Your task to perform on an android device: Open my contact list Image 0: 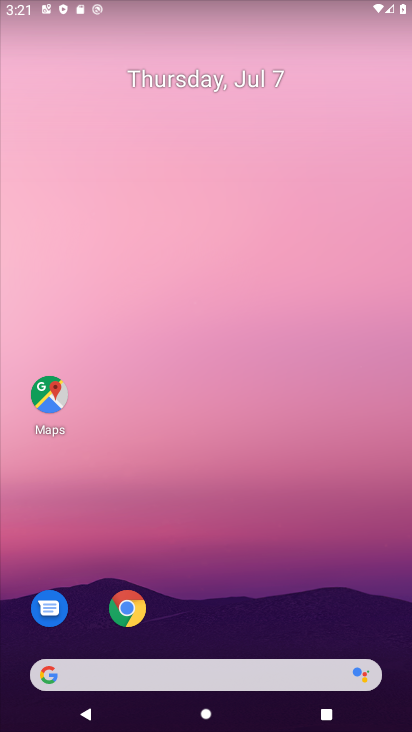
Step 0: drag from (395, 635) to (327, 68)
Your task to perform on an android device: Open my contact list Image 1: 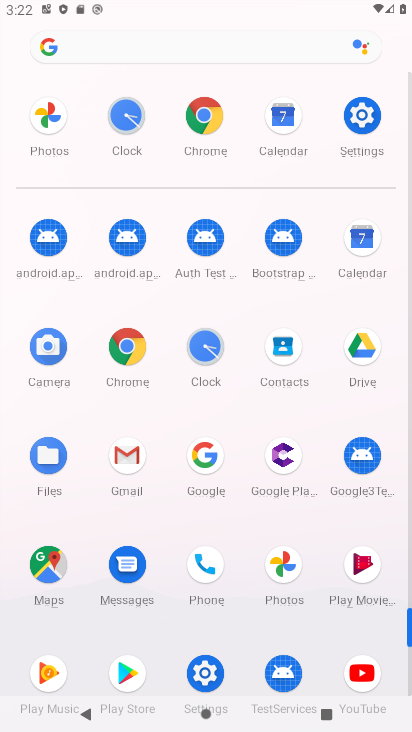
Step 1: click (285, 343)
Your task to perform on an android device: Open my contact list Image 2: 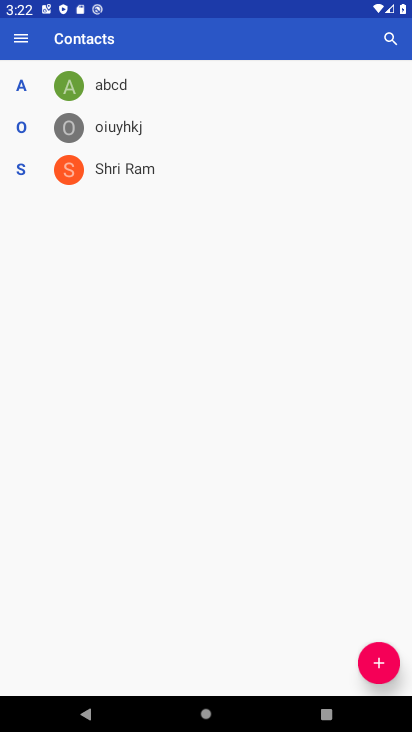
Step 2: task complete